Your task to perform on an android device: find photos in the google photos app Image 0: 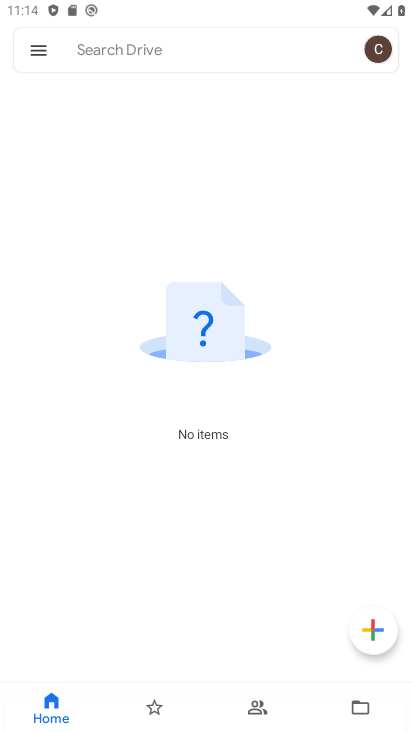
Step 0: press back button
Your task to perform on an android device: find photos in the google photos app Image 1: 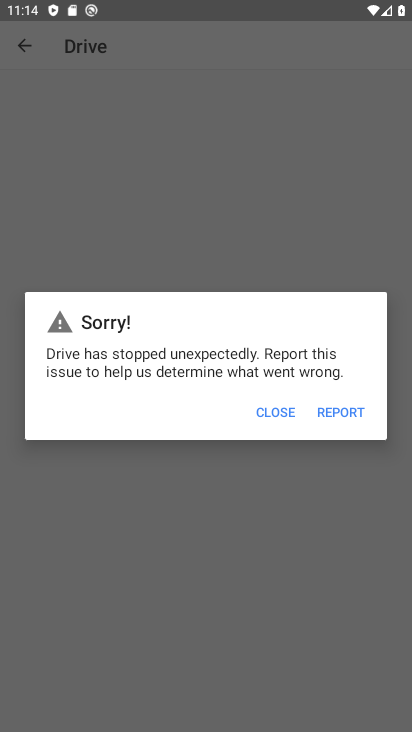
Step 1: click (269, 408)
Your task to perform on an android device: find photos in the google photos app Image 2: 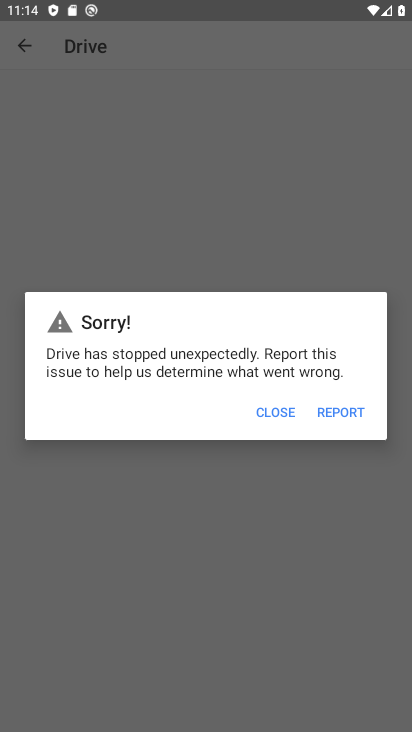
Step 2: click (275, 404)
Your task to perform on an android device: find photos in the google photos app Image 3: 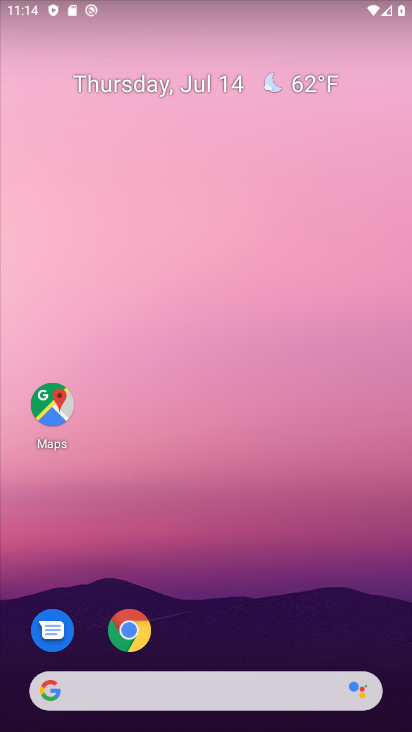
Step 3: drag from (256, 322) to (217, 125)
Your task to perform on an android device: find photos in the google photos app Image 4: 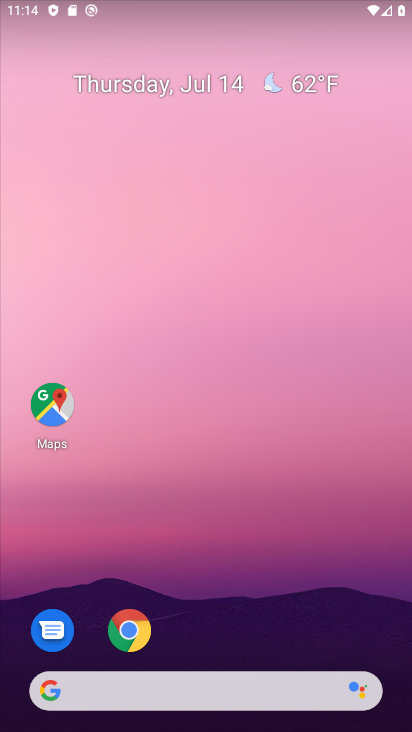
Step 4: drag from (219, 582) to (138, 128)
Your task to perform on an android device: find photos in the google photos app Image 5: 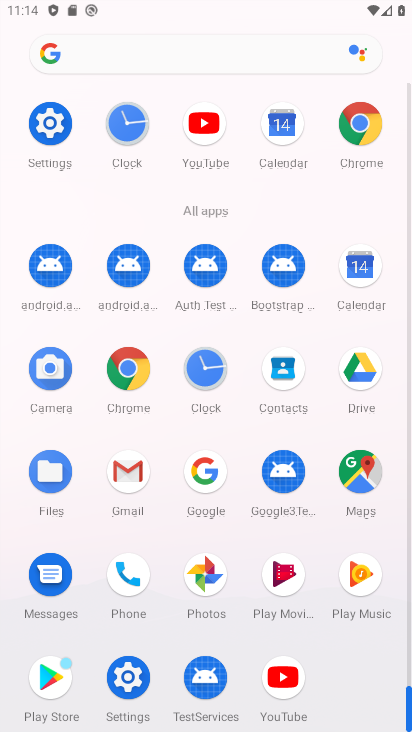
Step 5: drag from (275, 704) to (202, 183)
Your task to perform on an android device: find photos in the google photos app Image 6: 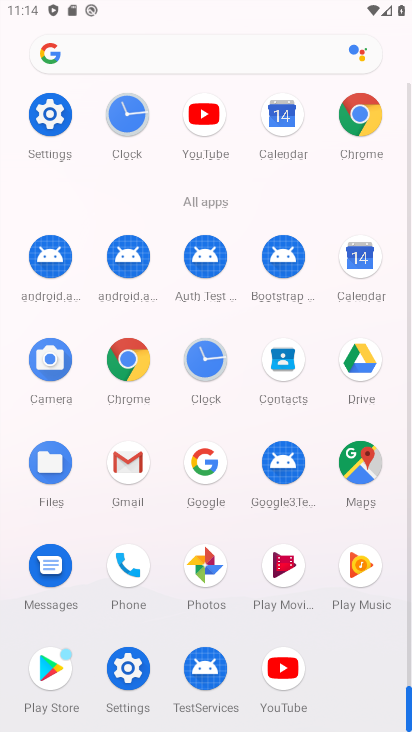
Step 6: click (207, 467)
Your task to perform on an android device: find photos in the google photos app Image 7: 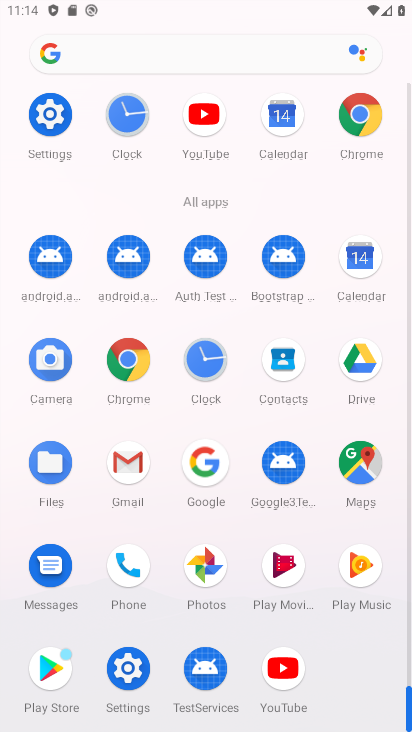
Step 7: click (205, 471)
Your task to perform on an android device: find photos in the google photos app Image 8: 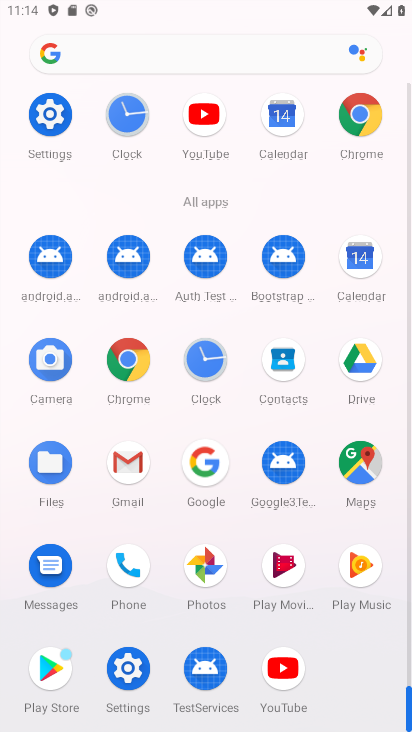
Step 8: click (209, 472)
Your task to perform on an android device: find photos in the google photos app Image 9: 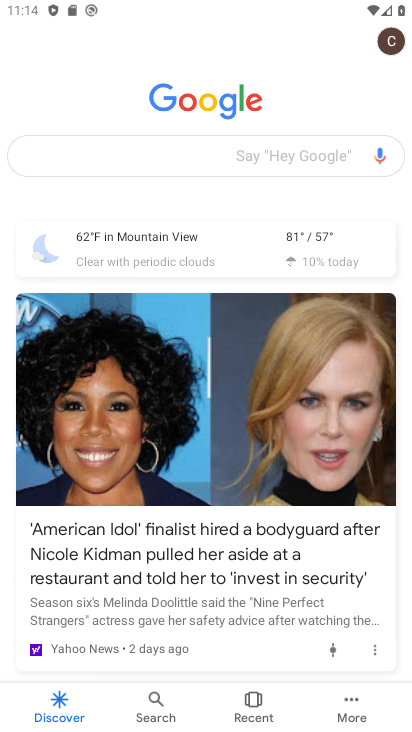
Step 9: press back button
Your task to perform on an android device: find photos in the google photos app Image 10: 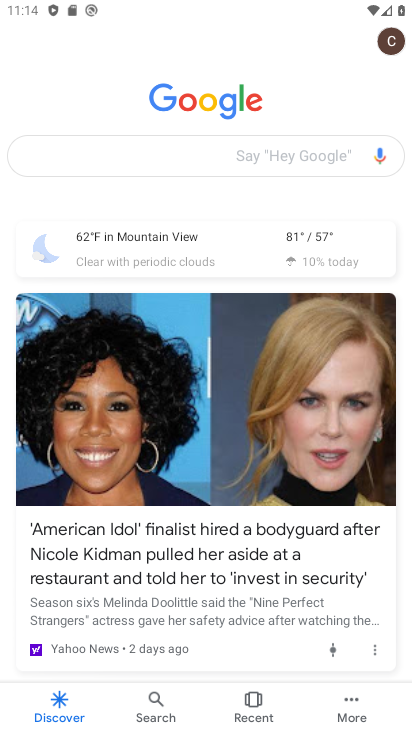
Step 10: press back button
Your task to perform on an android device: find photos in the google photos app Image 11: 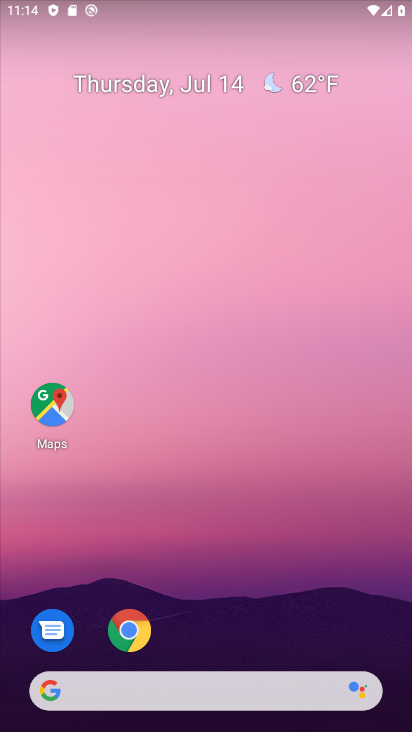
Step 11: drag from (233, 615) to (210, 12)
Your task to perform on an android device: find photos in the google photos app Image 12: 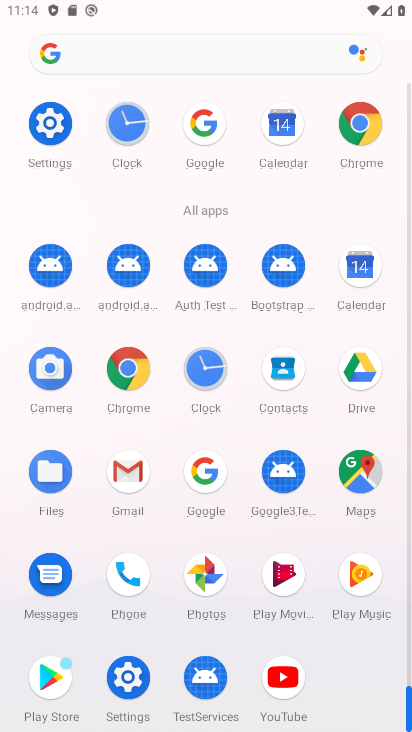
Step 12: click (225, 570)
Your task to perform on an android device: find photos in the google photos app Image 13: 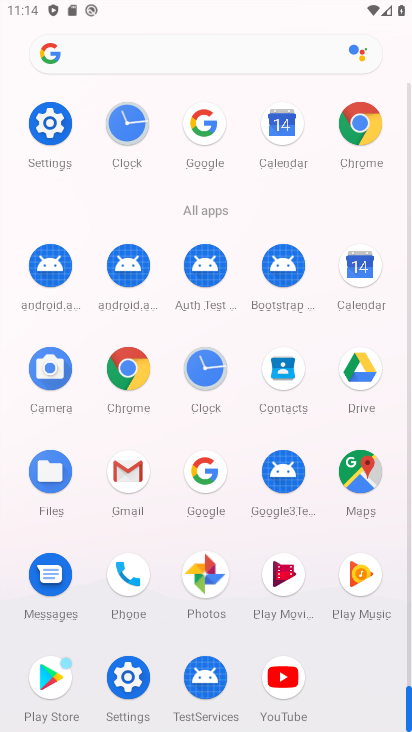
Step 13: click (212, 569)
Your task to perform on an android device: find photos in the google photos app Image 14: 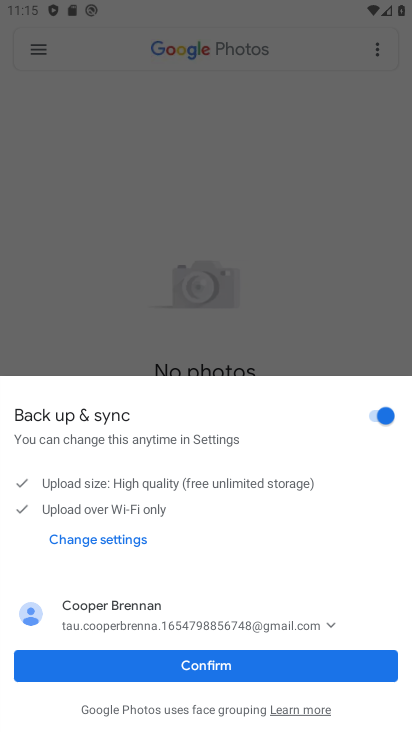
Step 14: click (86, 177)
Your task to perform on an android device: find photos in the google photos app Image 15: 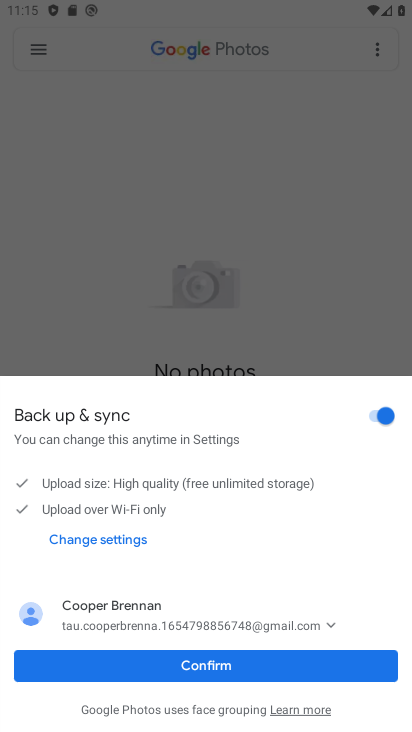
Step 15: click (107, 180)
Your task to perform on an android device: find photos in the google photos app Image 16: 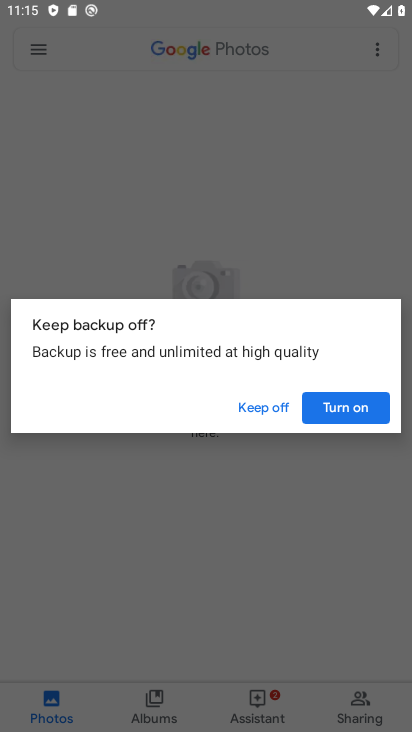
Step 16: click (271, 207)
Your task to perform on an android device: find photos in the google photos app Image 17: 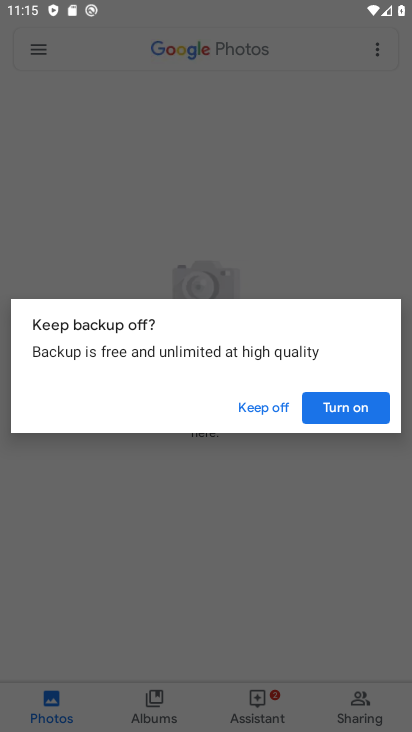
Step 17: click (271, 208)
Your task to perform on an android device: find photos in the google photos app Image 18: 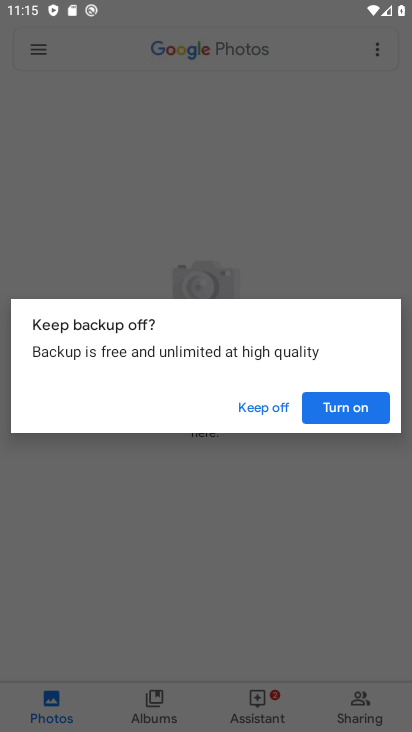
Step 18: click (271, 229)
Your task to perform on an android device: find photos in the google photos app Image 19: 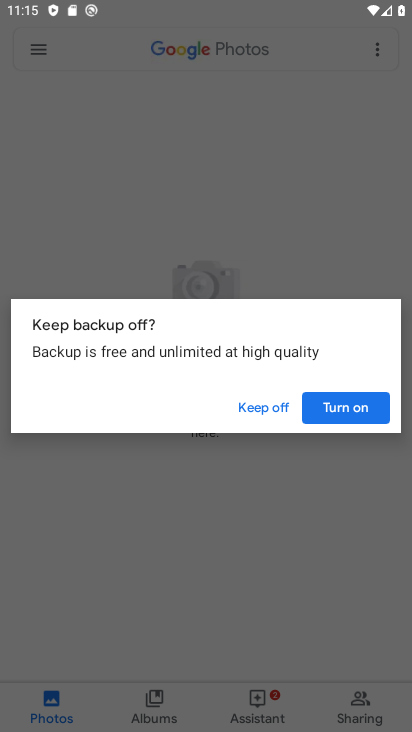
Step 19: click (274, 243)
Your task to perform on an android device: find photos in the google photos app Image 20: 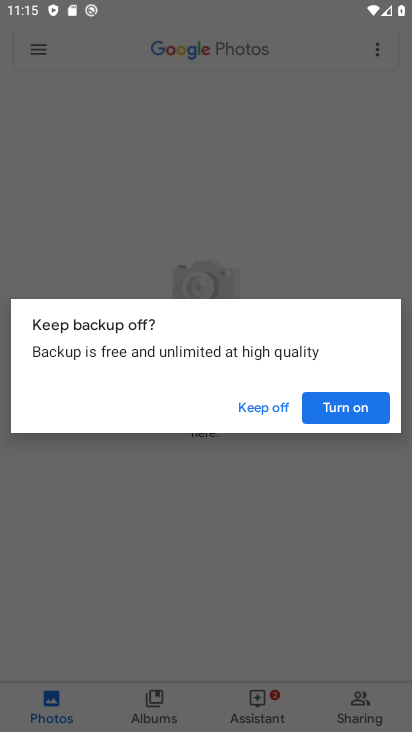
Step 20: click (270, 259)
Your task to perform on an android device: find photos in the google photos app Image 21: 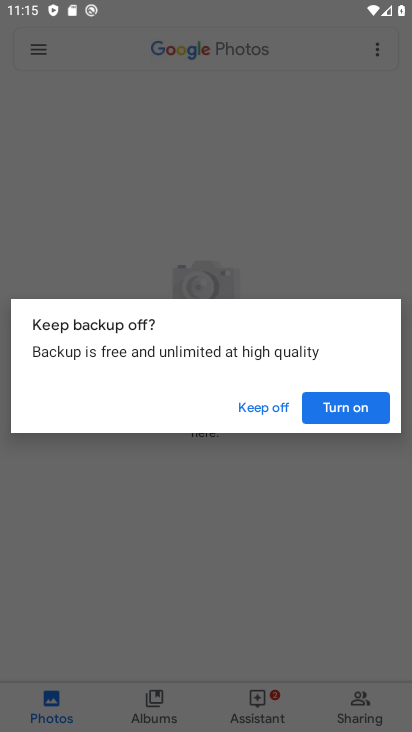
Step 21: click (271, 259)
Your task to perform on an android device: find photos in the google photos app Image 22: 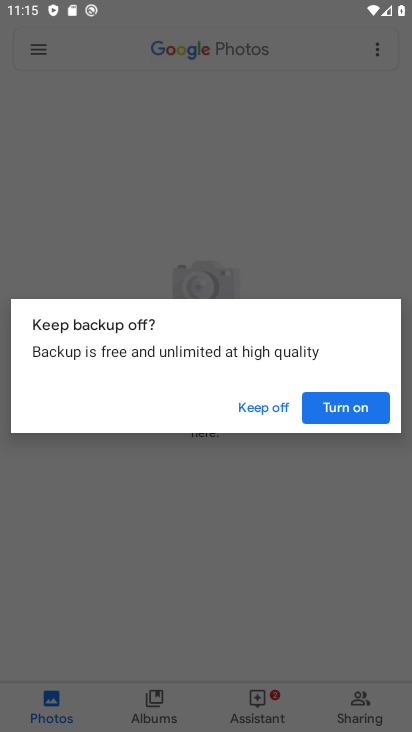
Step 22: click (273, 262)
Your task to perform on an android device: find photos in the google photos app Image 23: 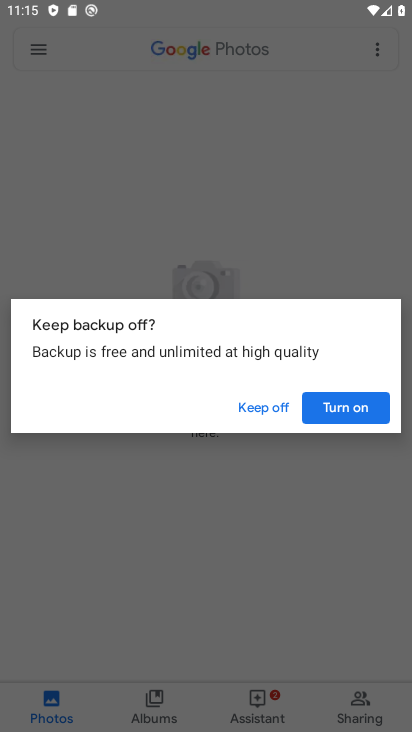
Step 23: click (273, 262)
Your task to perform on an android device: find photos in the google photos app Image 24: 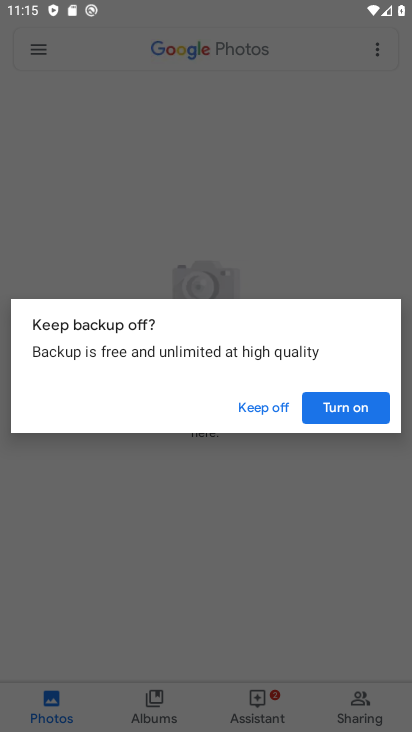
Step 24: click (276, 264)
Your task to perform on an android device: find photos in the google photos app Image 25: 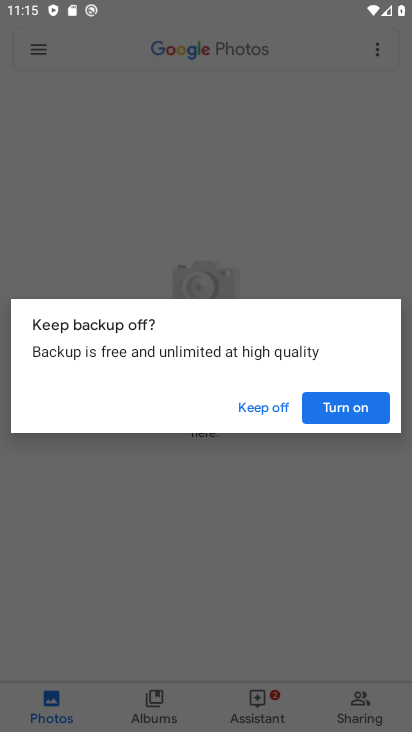
Step 25: click (251, 415)
Your task to perform on an android device: find photos in the google photos app Image 26: 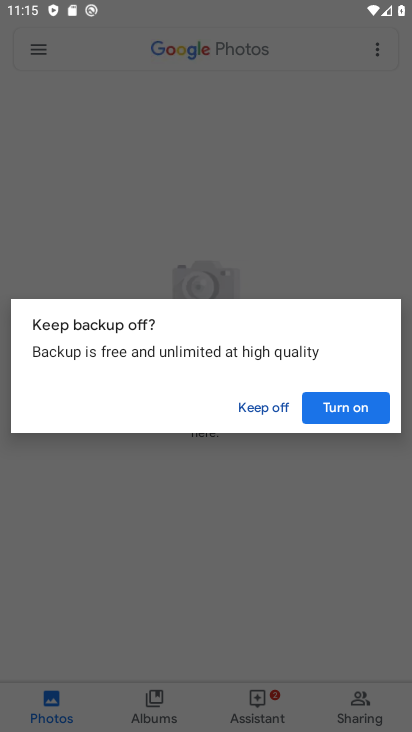
Step 26: click (259, 152)
Your task to perform on an android device: find photos in the google photos app Image 27: 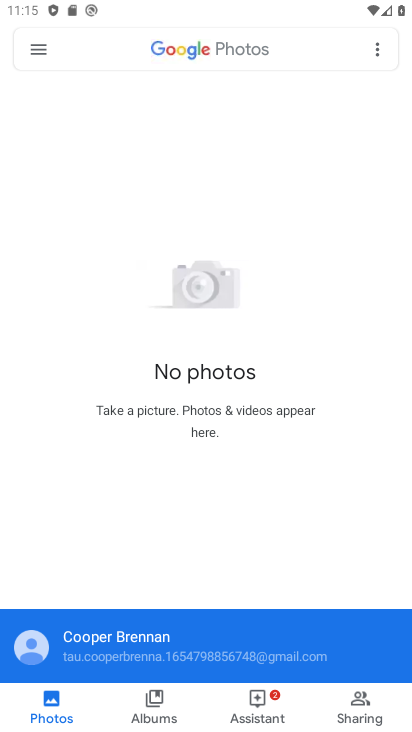
Step 27: task complete